Your task to perform on an android device: check data usage Image 0: 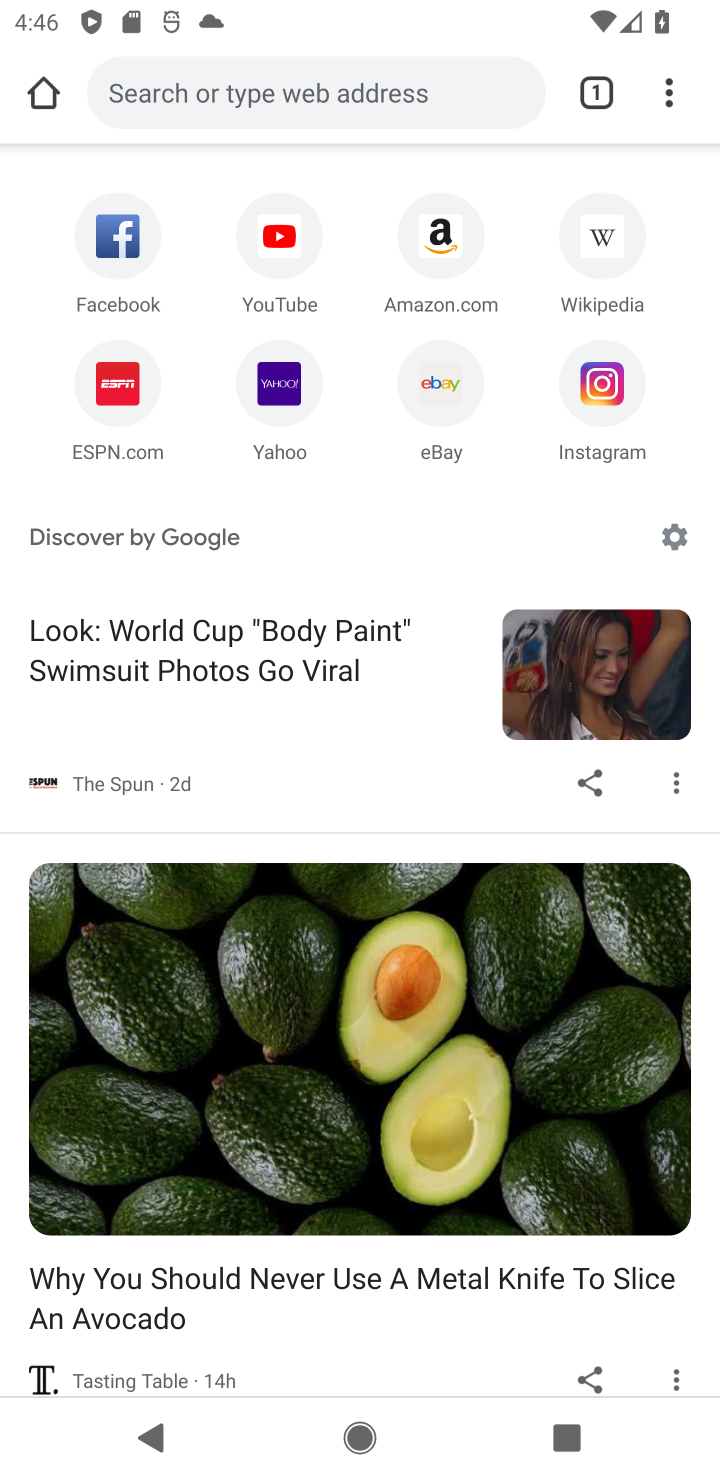
Step 0: press back button
Your task to perform on an android device: check data usage Image 1: 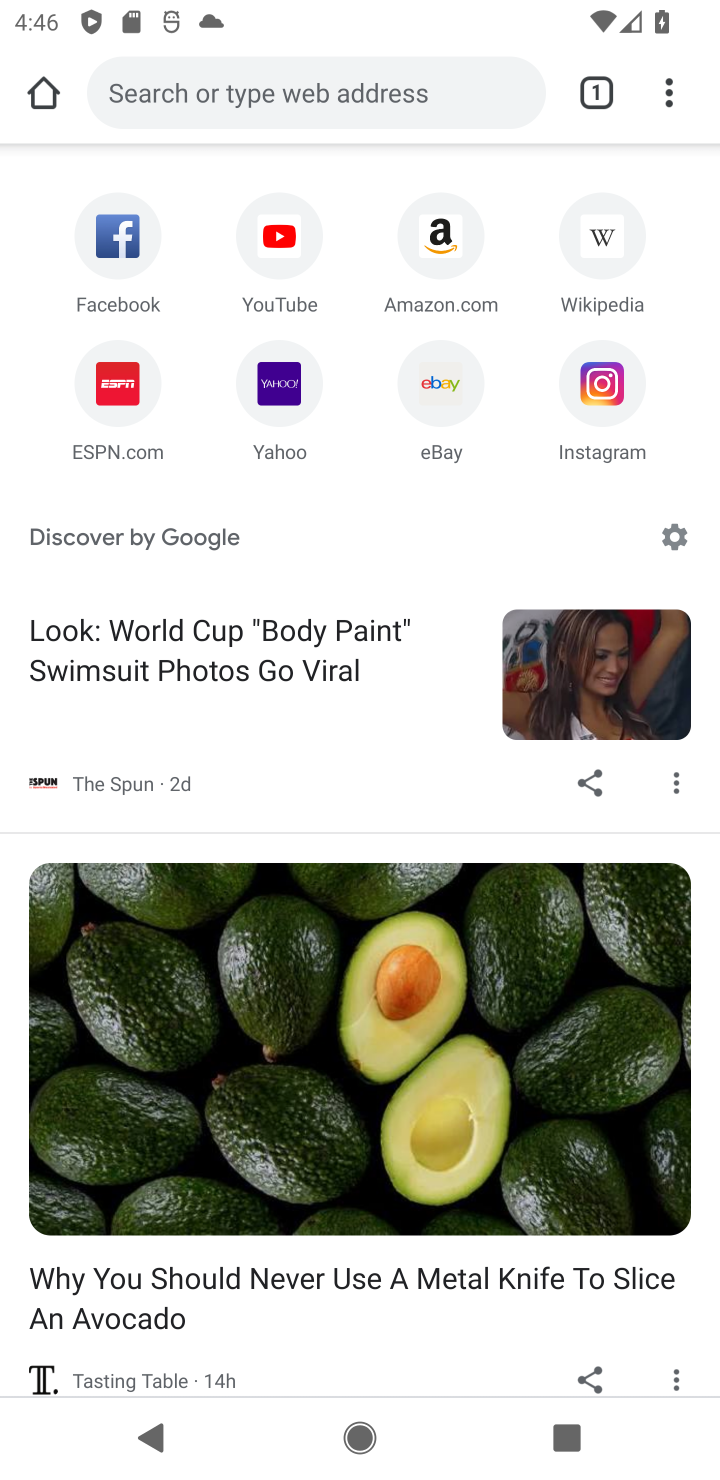
Step 1: press back button
Your task to perform on an android device: check data usage Image 2: 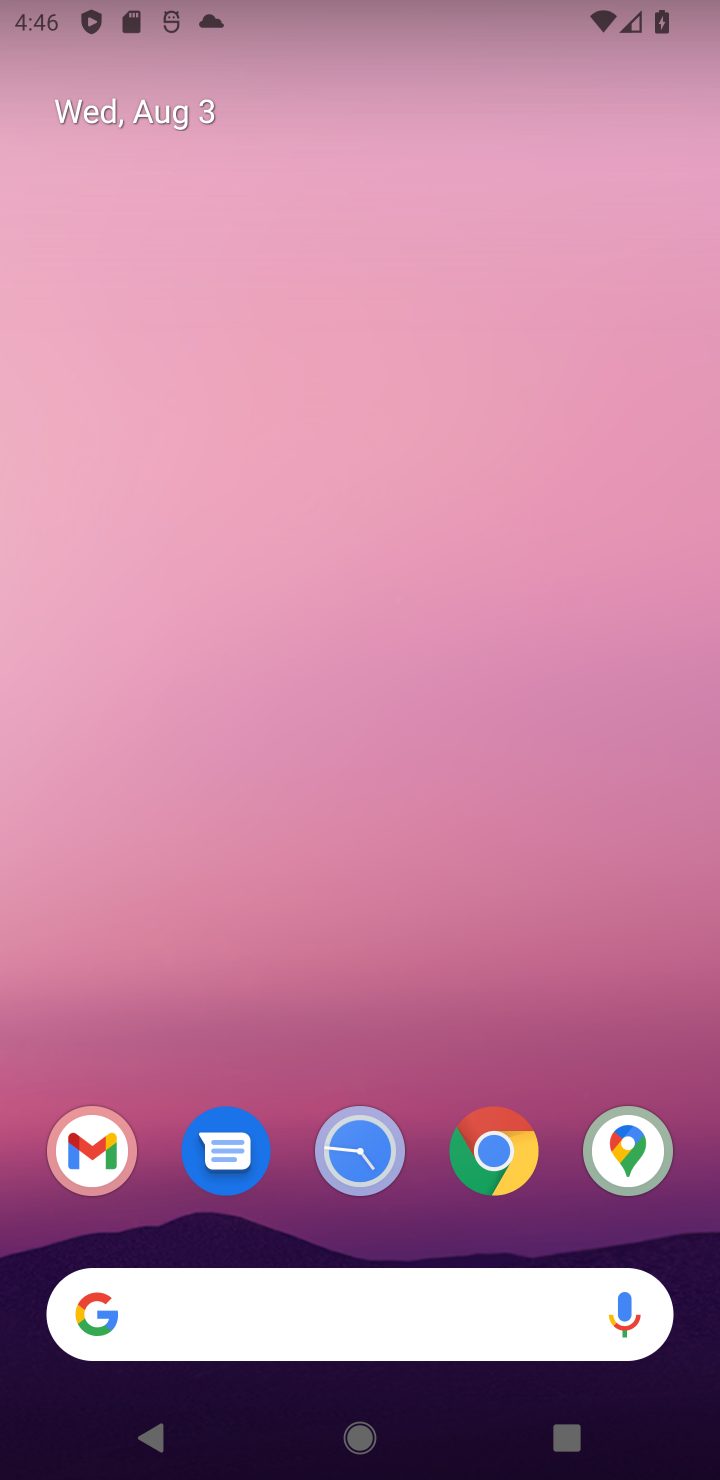
Step 2: press back button
Your task to perform on an android device: check data usage Image 3: 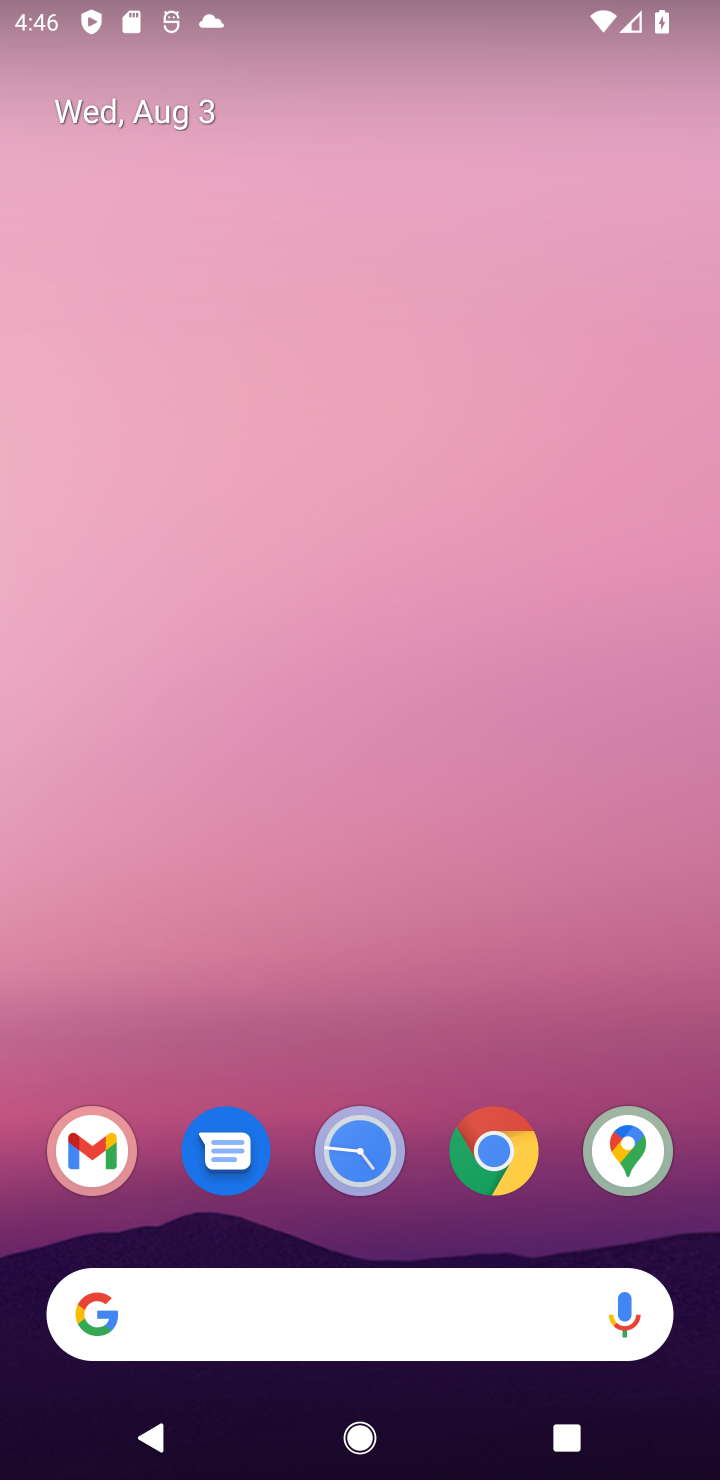
Step 3: drag from (352, 1402) to (209, 478)
Your task to perform on an android device: check data usage Image 4: 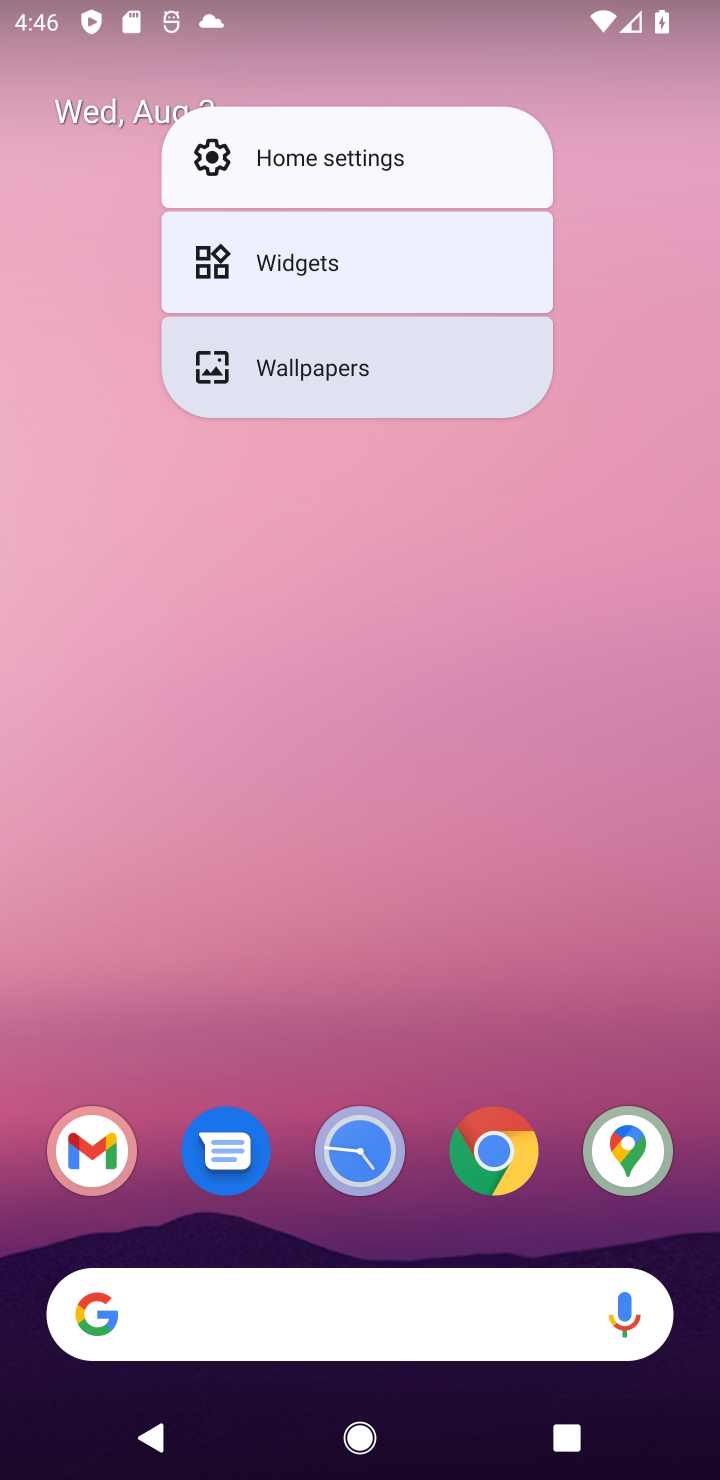
Step 4: drag from (289, 1355) to (220, 307)
Your task to perform on an android device: check data usage Image 5: 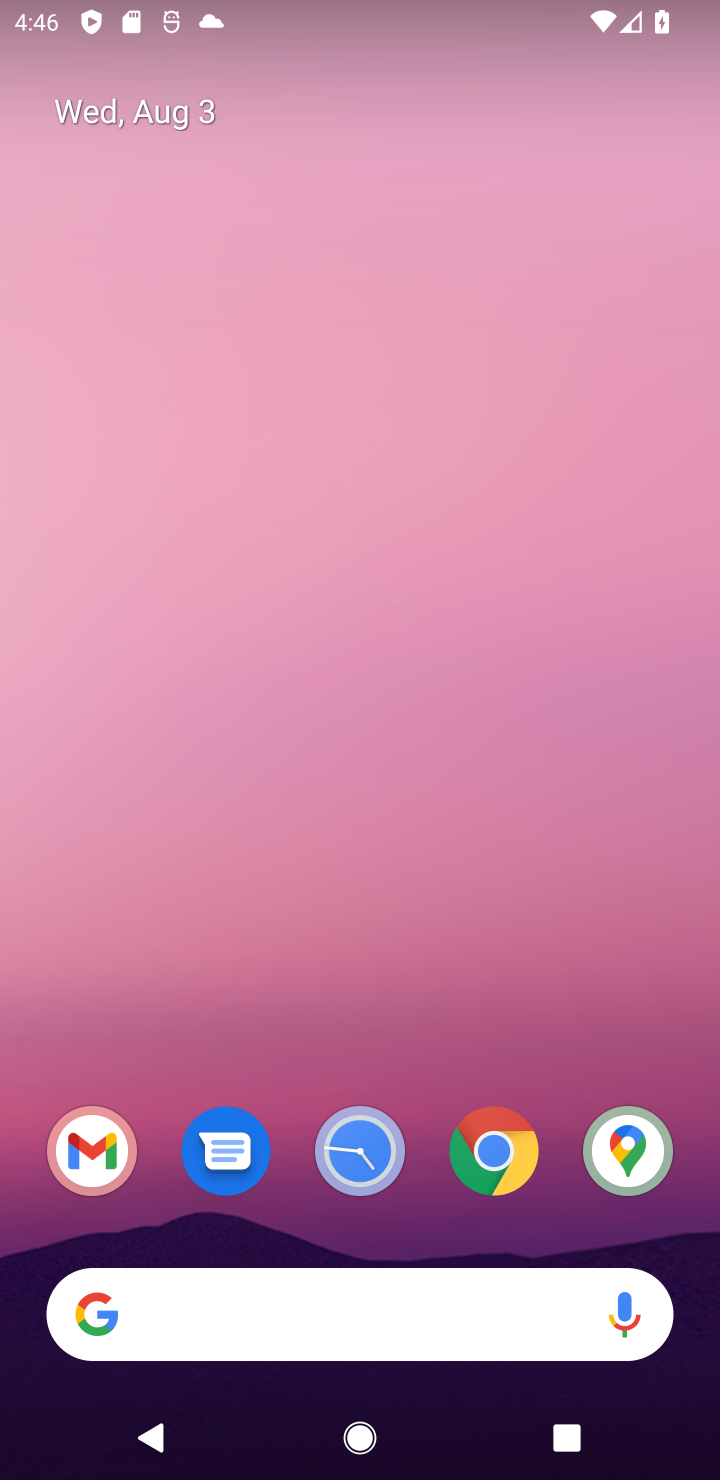
Step 5: drag from (390, 1276) to (287, 109)
Your task to perform on an android device: check data usage Image 6: 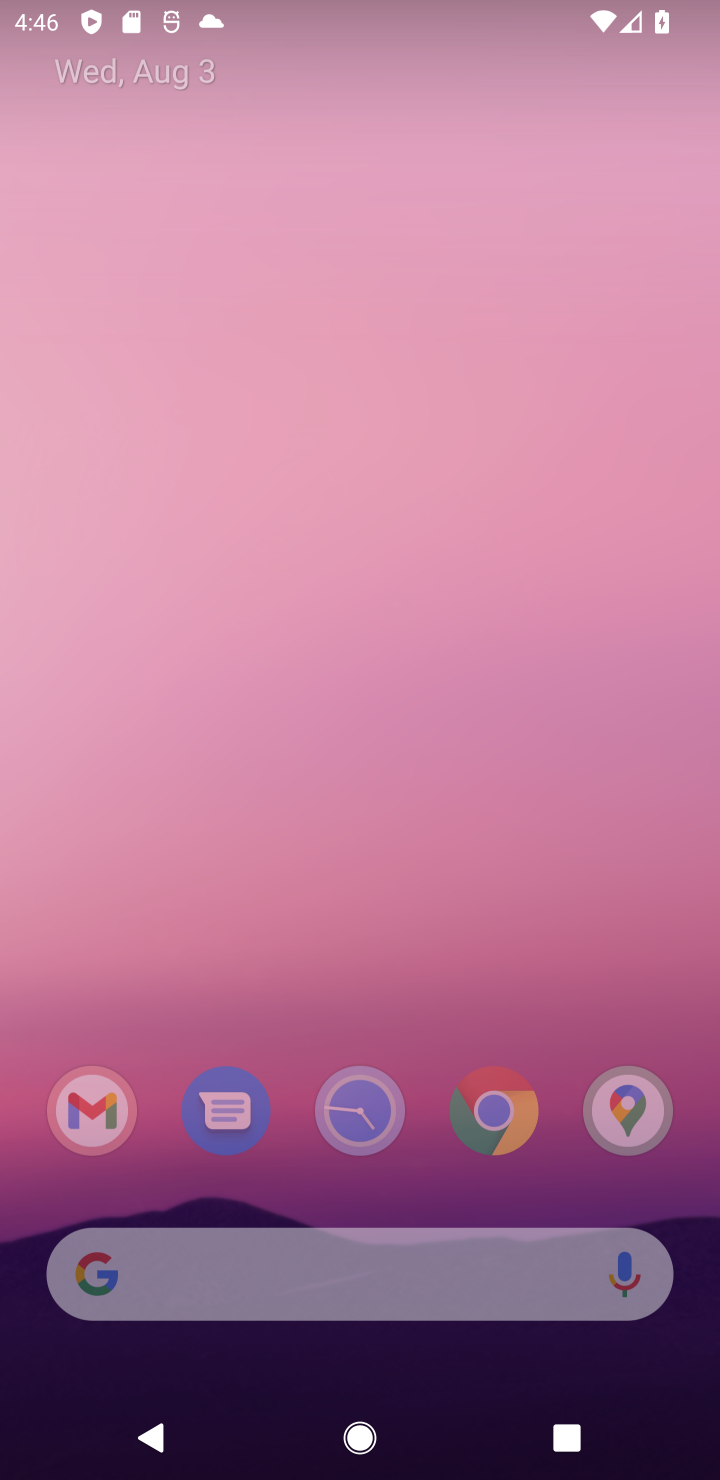
Step 6: drag from (373, 401) to (360, 256)
Your task to perform on an android device: check data usage Image 7: 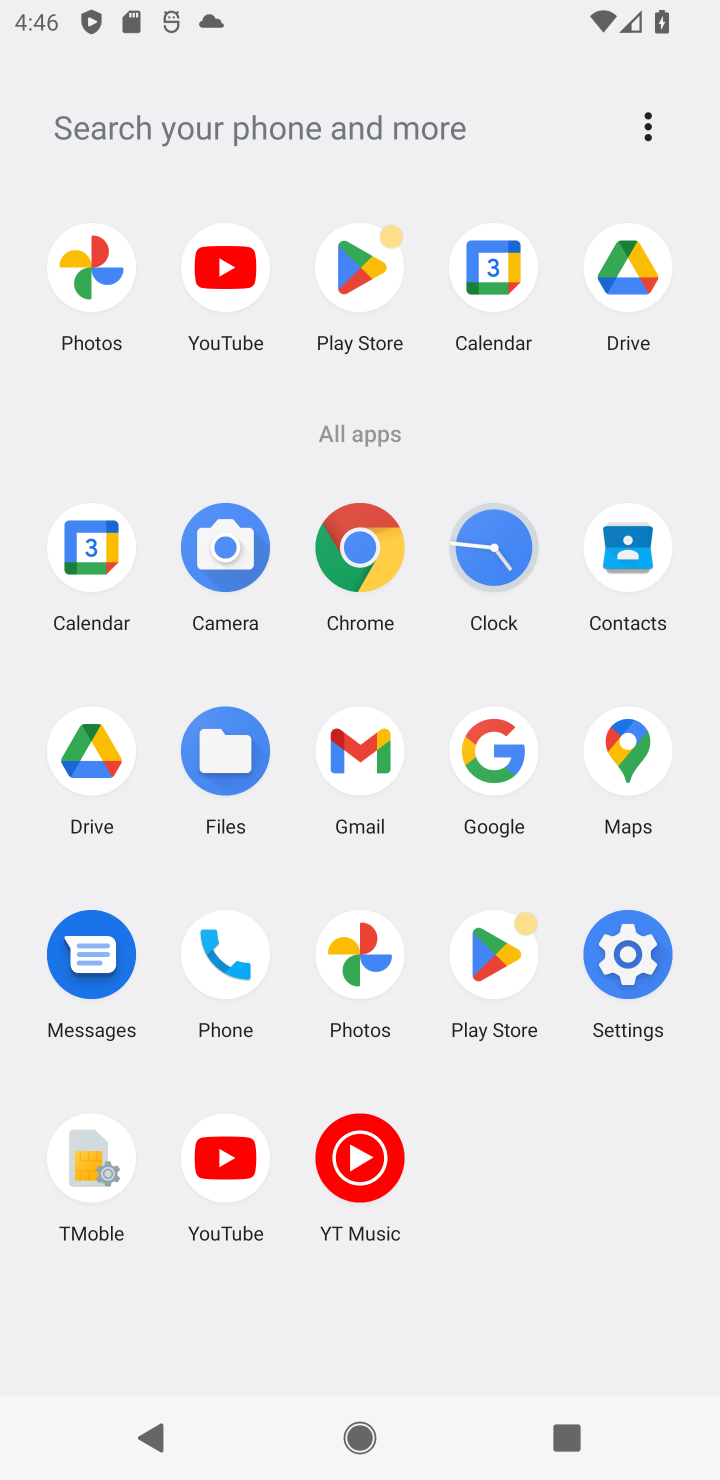
Step 7: click (376, 563)
Your task to perform on an android device: check data usage Image 8: 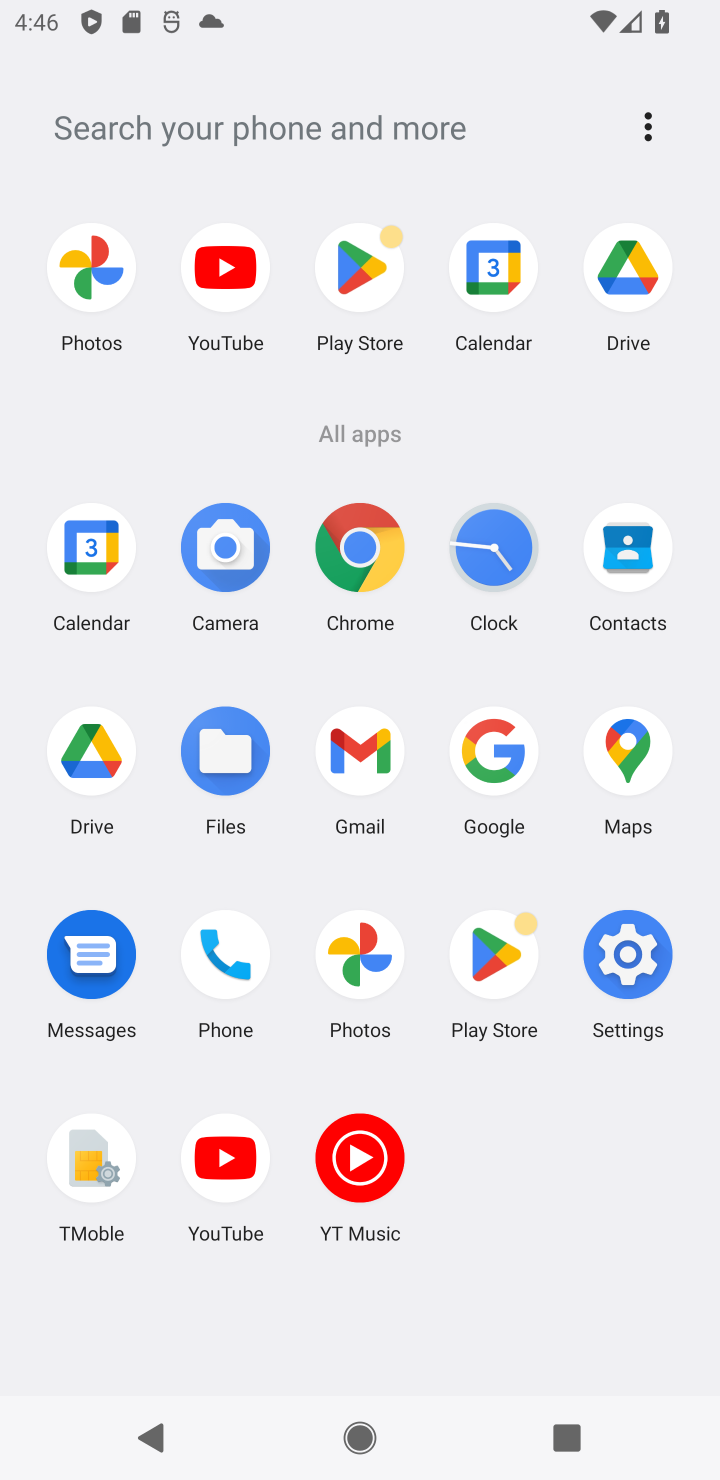
Step 8: click (376, 563)
Your task to perform on an android device: check data usage Image 9: 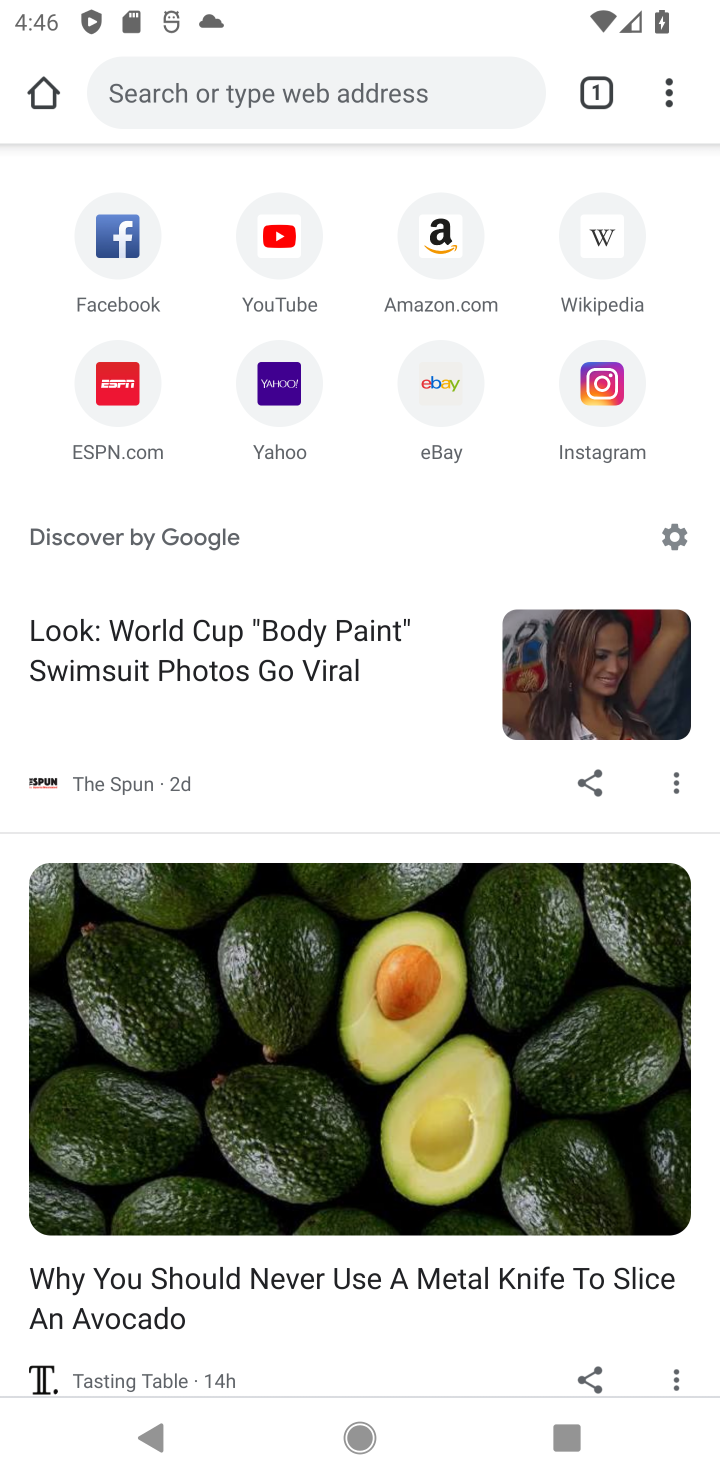
Step 9: press back button
Your task to perform on an android device: check data usage Image 10: 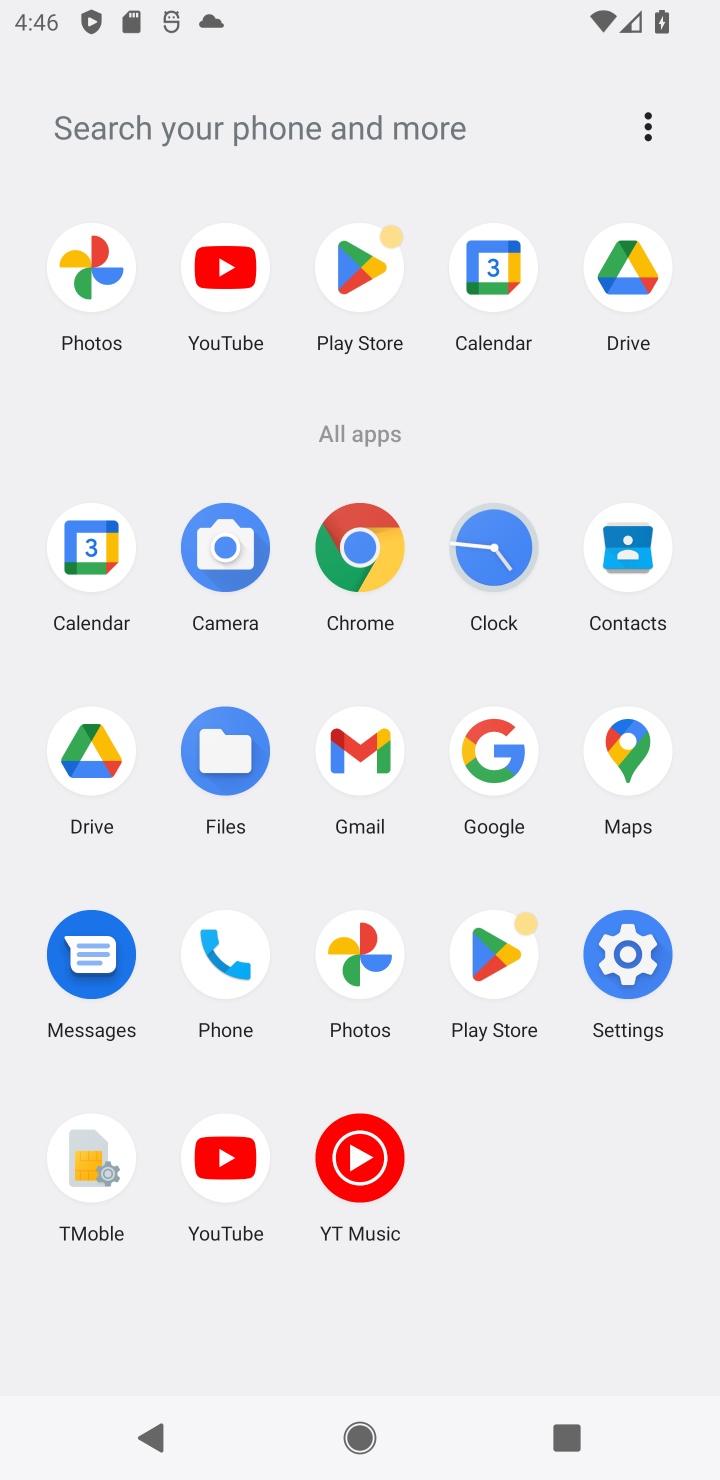
Step 10: click (634, 957)
Your task to perform on an android device: check data usage Image 11: 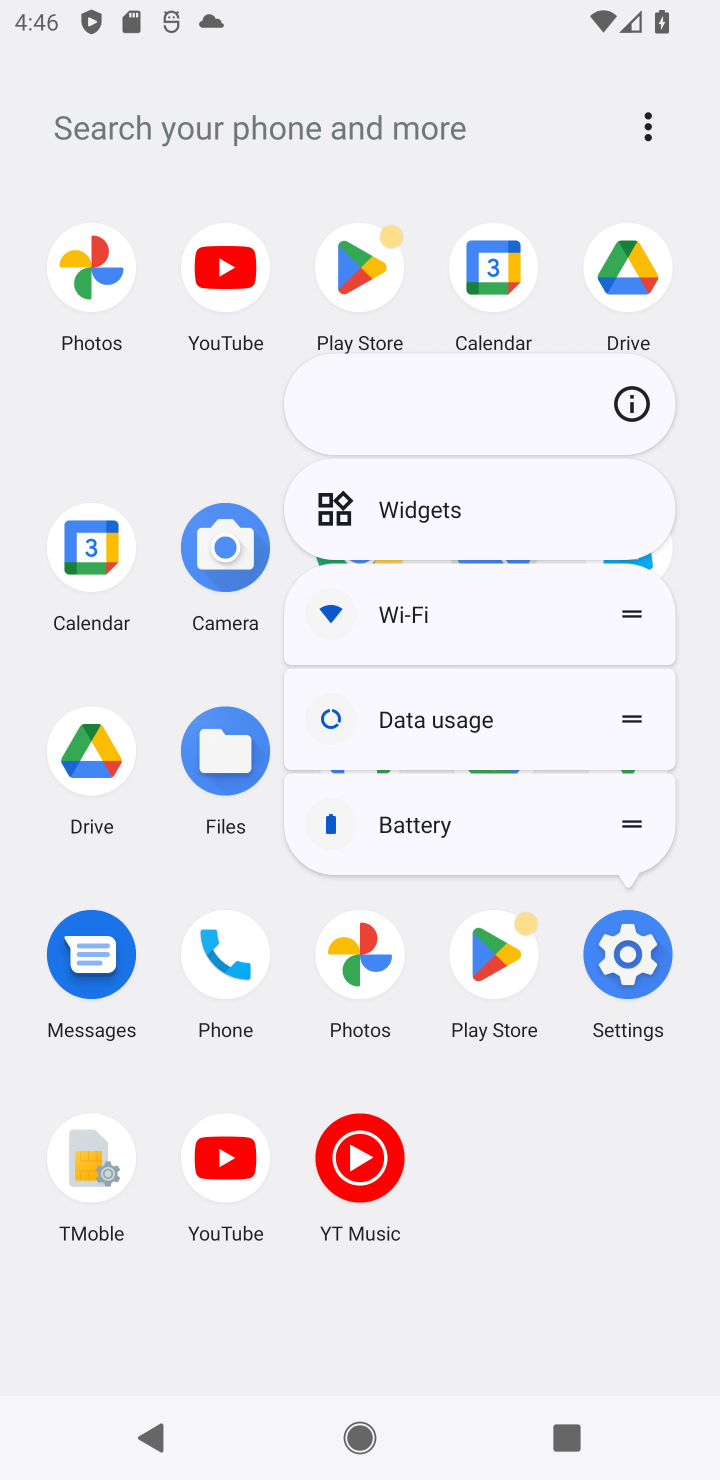
Step 11: click (632, 929)
Your task to perform on an android device: check data usage Image 12: 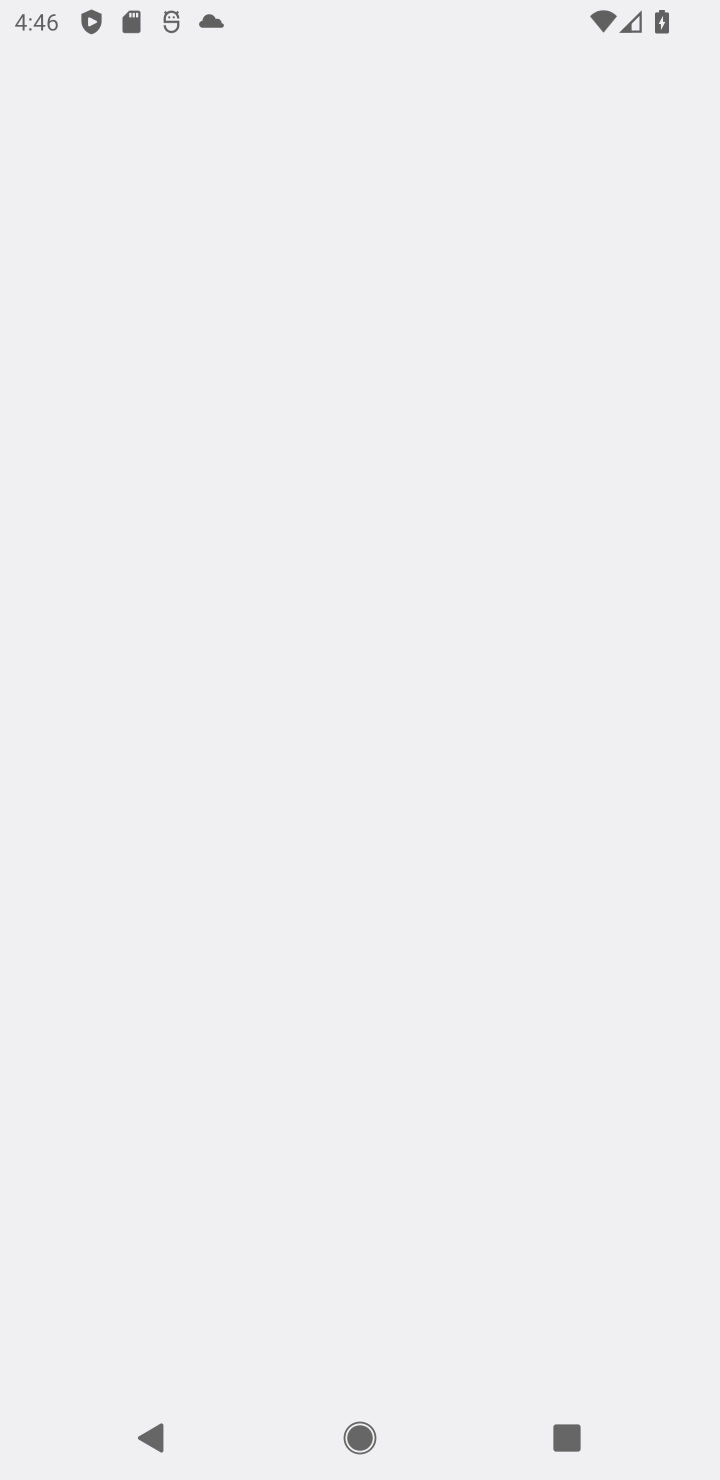
Step 12: click (633, 947)
Your task to perform on an android device: check data usage Image 13: 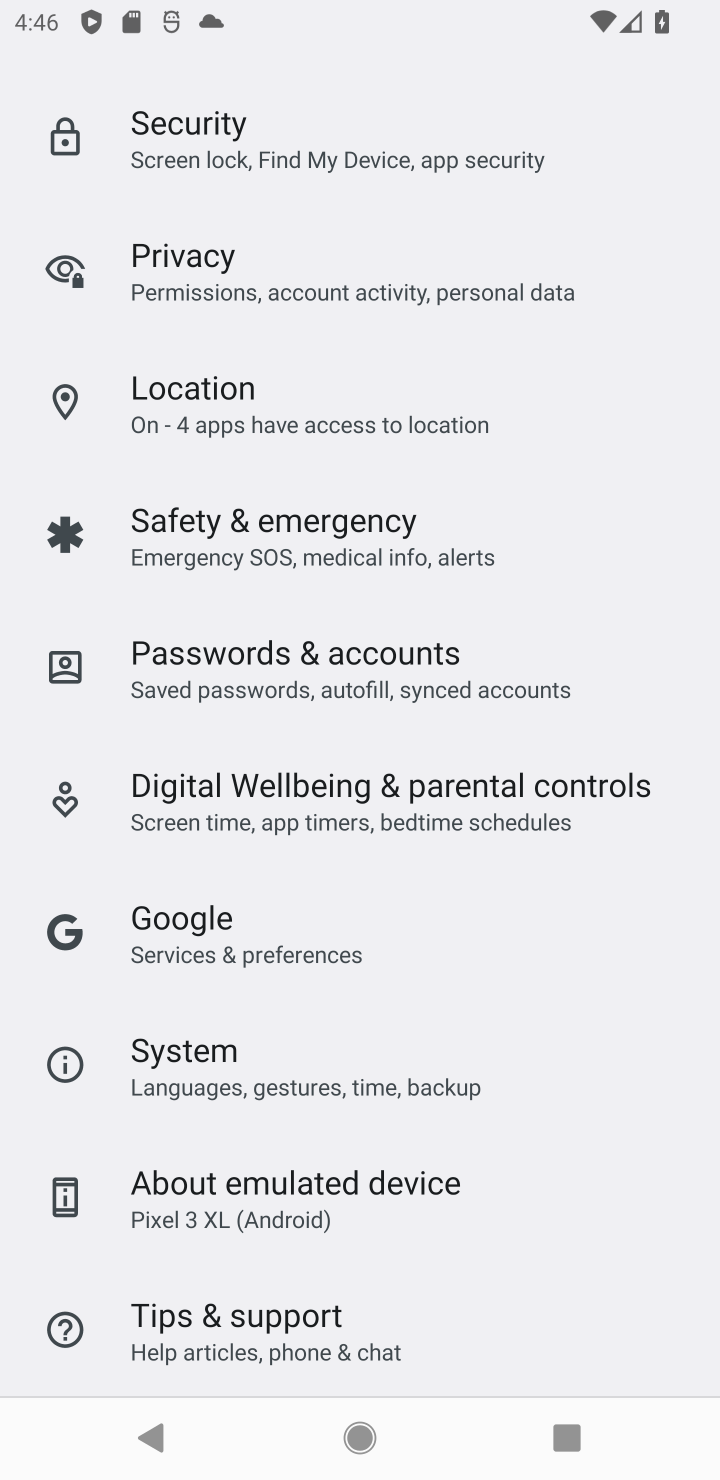
Step 13: drag from (230, 227) to (331, 1044)
Your task to perform on an android device: check data usage Image 14: 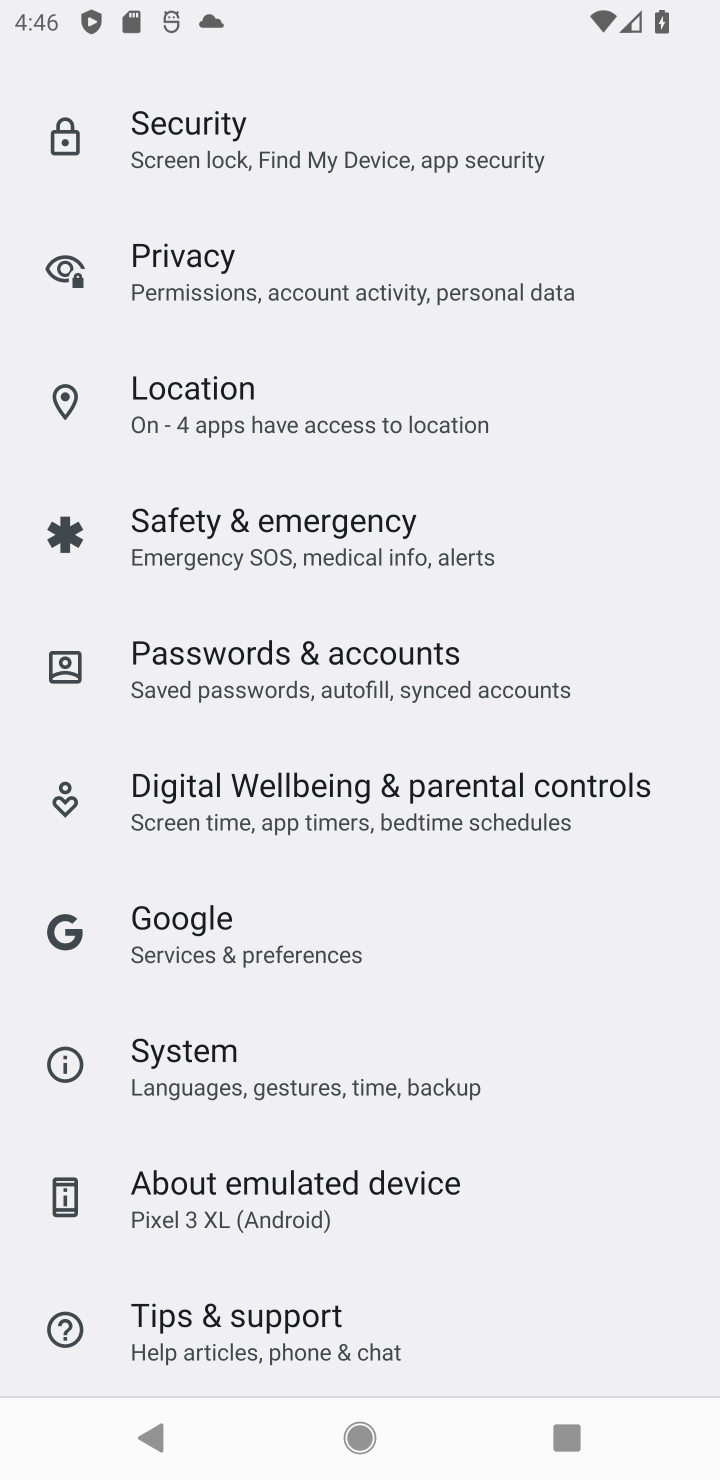
Step 14: drag from (134, 309) to (255, 1005)
Your task to perform on an android device: check data usage Image 15: 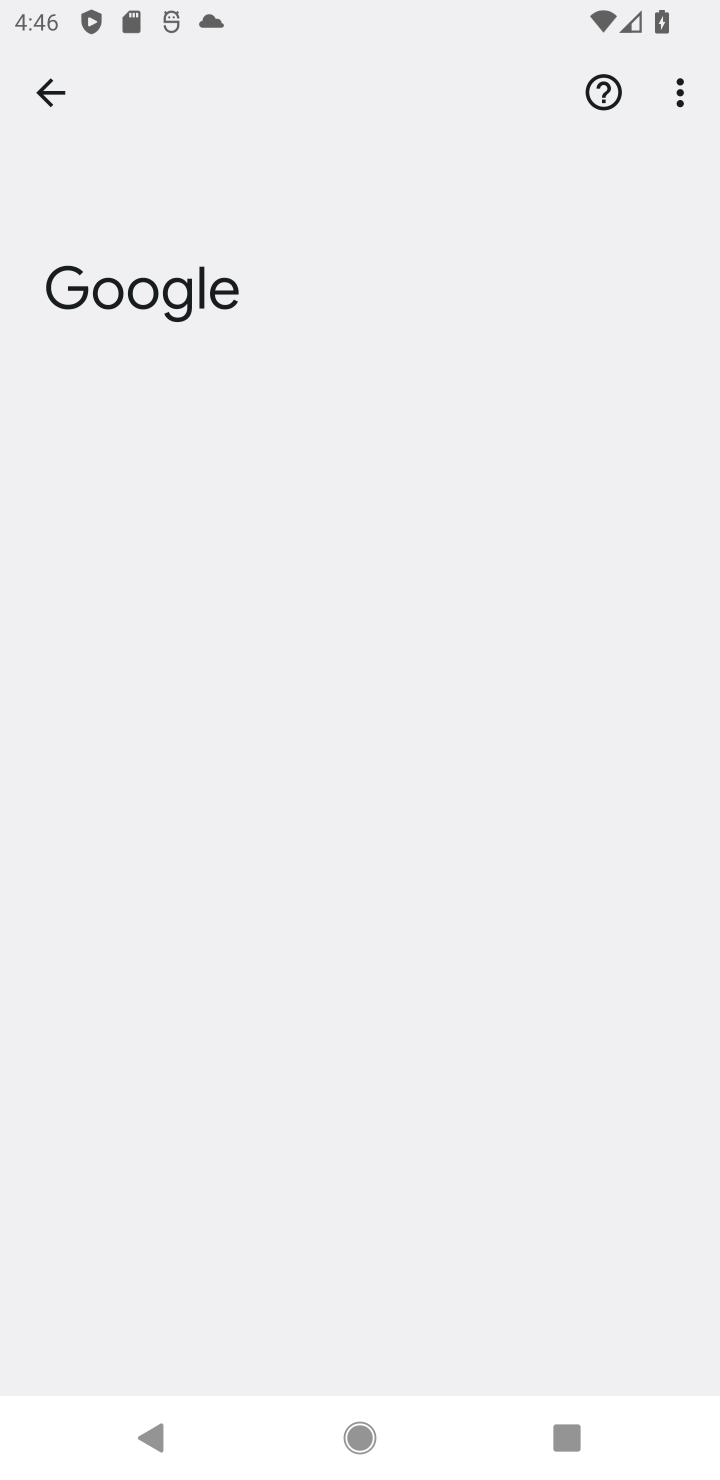
Step 15: drag from (135, 551) to (141, 1160)
Your task to perform on an android device: check data usage Image 16: 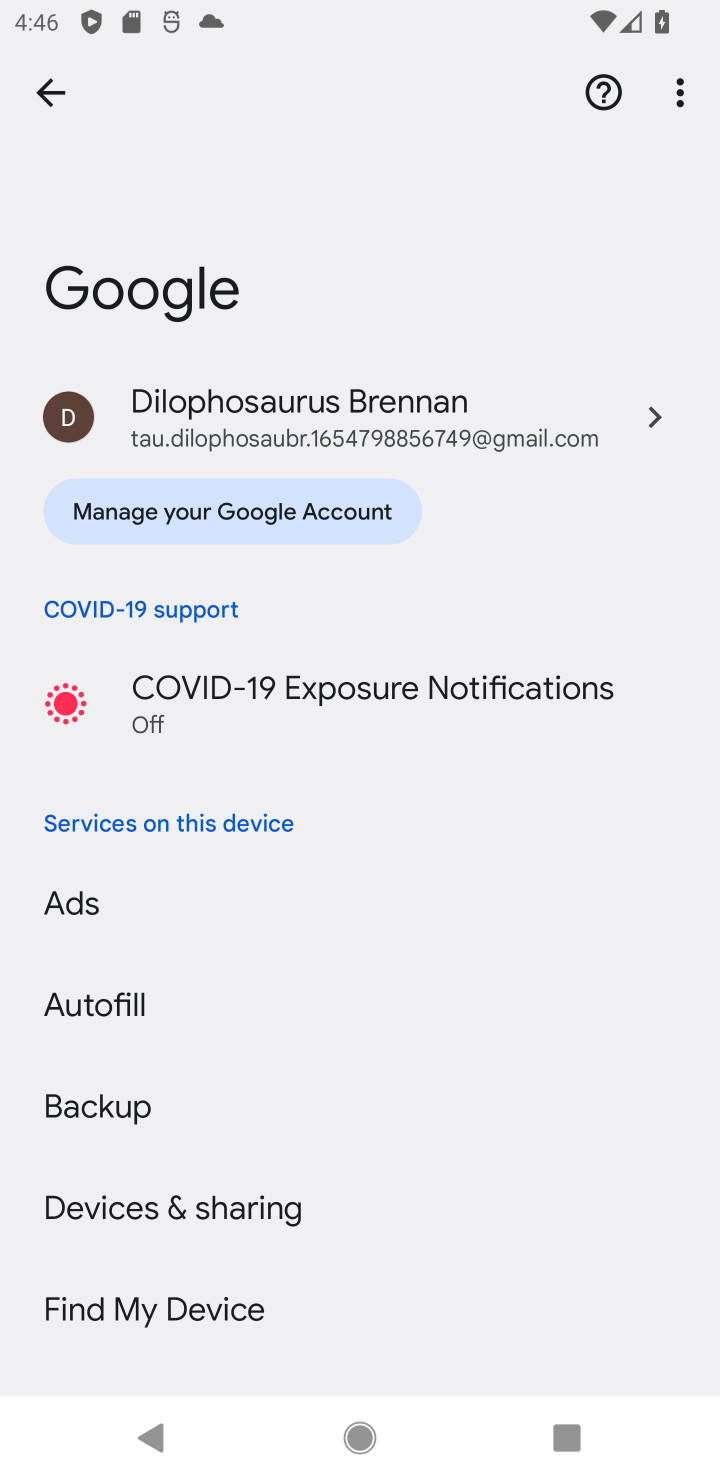
Step 16: click (61, 97)
Your task to perform on an android device: check data usage Image 17: 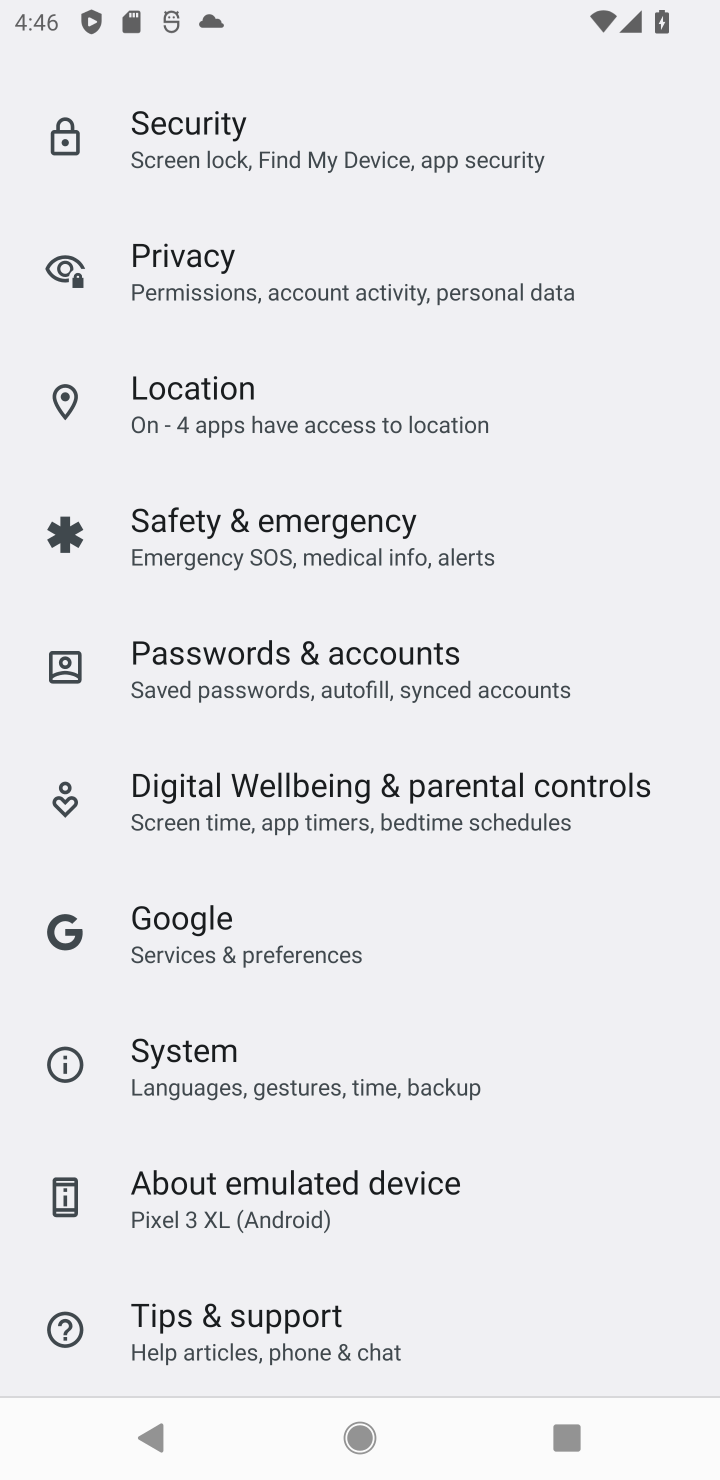
Step 17: drag from (338, 146) to (241, 1213)
Your task to perform on an android device: check data usage Image 18: 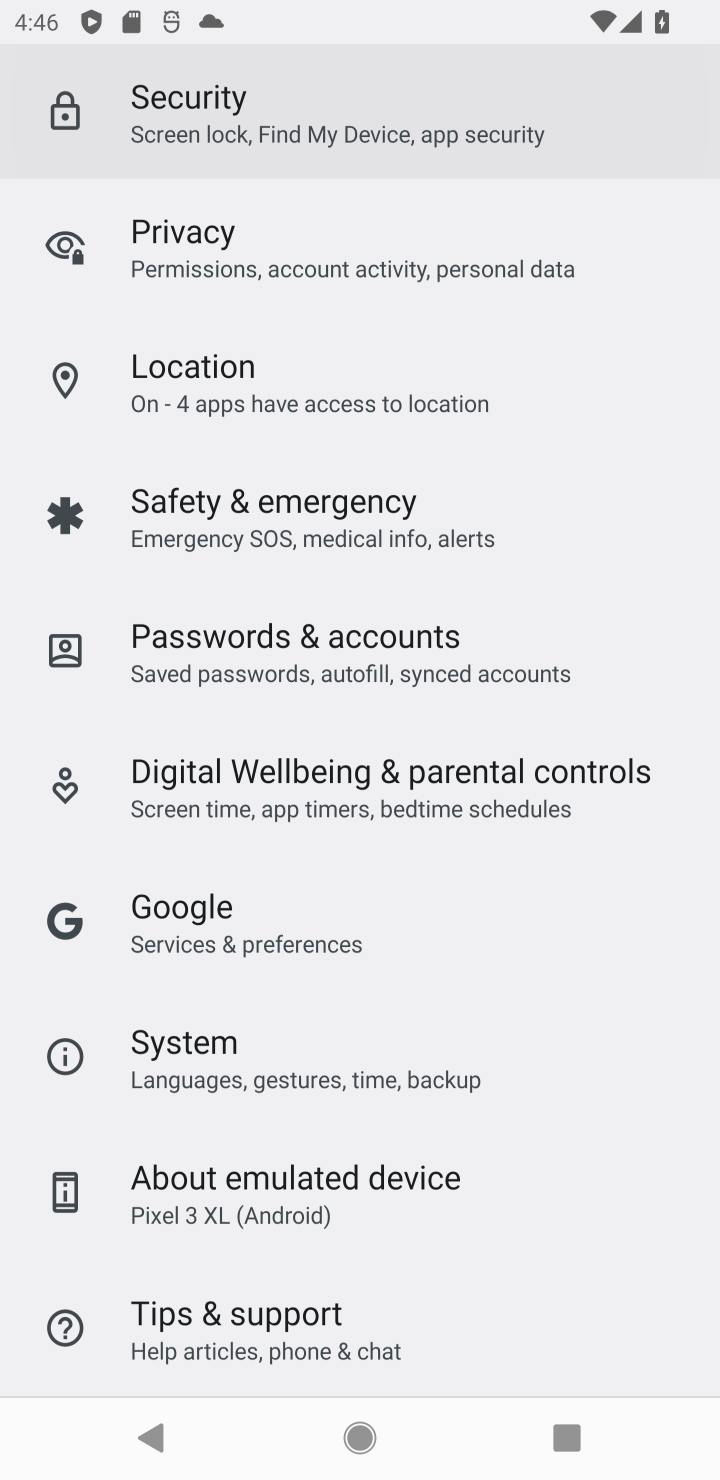
Step 18: drag from (263, 672) to (327, 1183)
Your task to perform on an android device: check data usage Image 19: 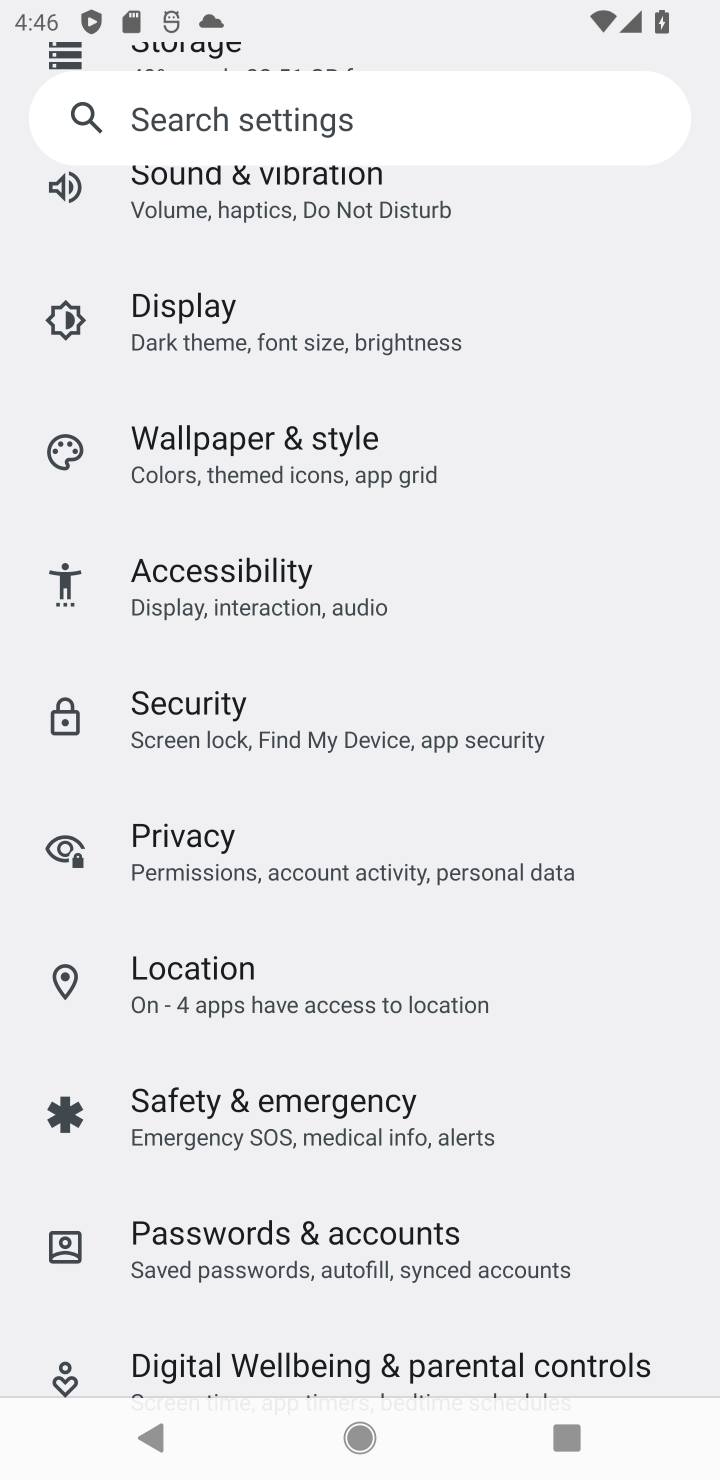
Step 19: drag from (239, 244) to (396, 1104)
Your task to perform on an android device: check data usage Image 20: 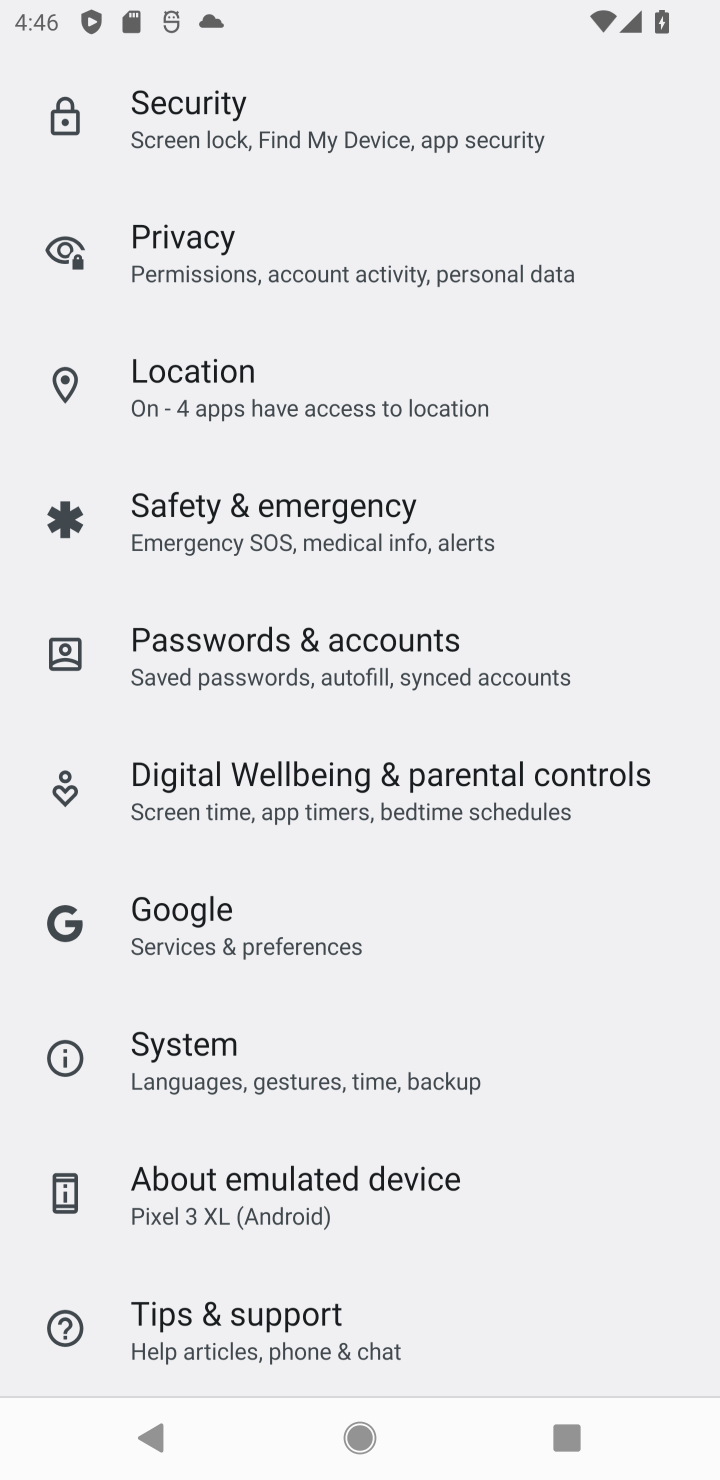
Step 20: drag from (207, 474) to (186, 1356)
Your task to perform on an android device: check data usage Image 21: 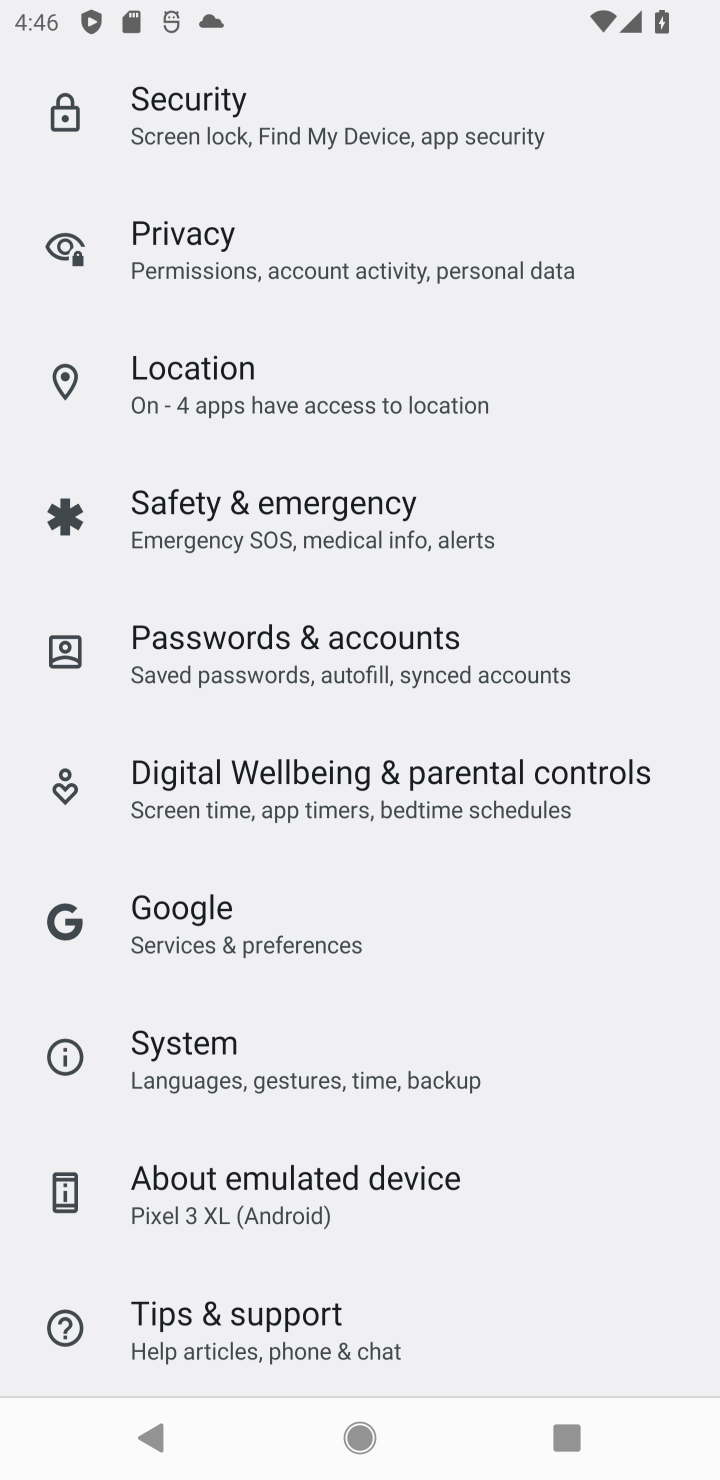
Step 21: drag from (132, 485) to (285, 1002)
Your task to perform on an android device: check data usage Image 22: 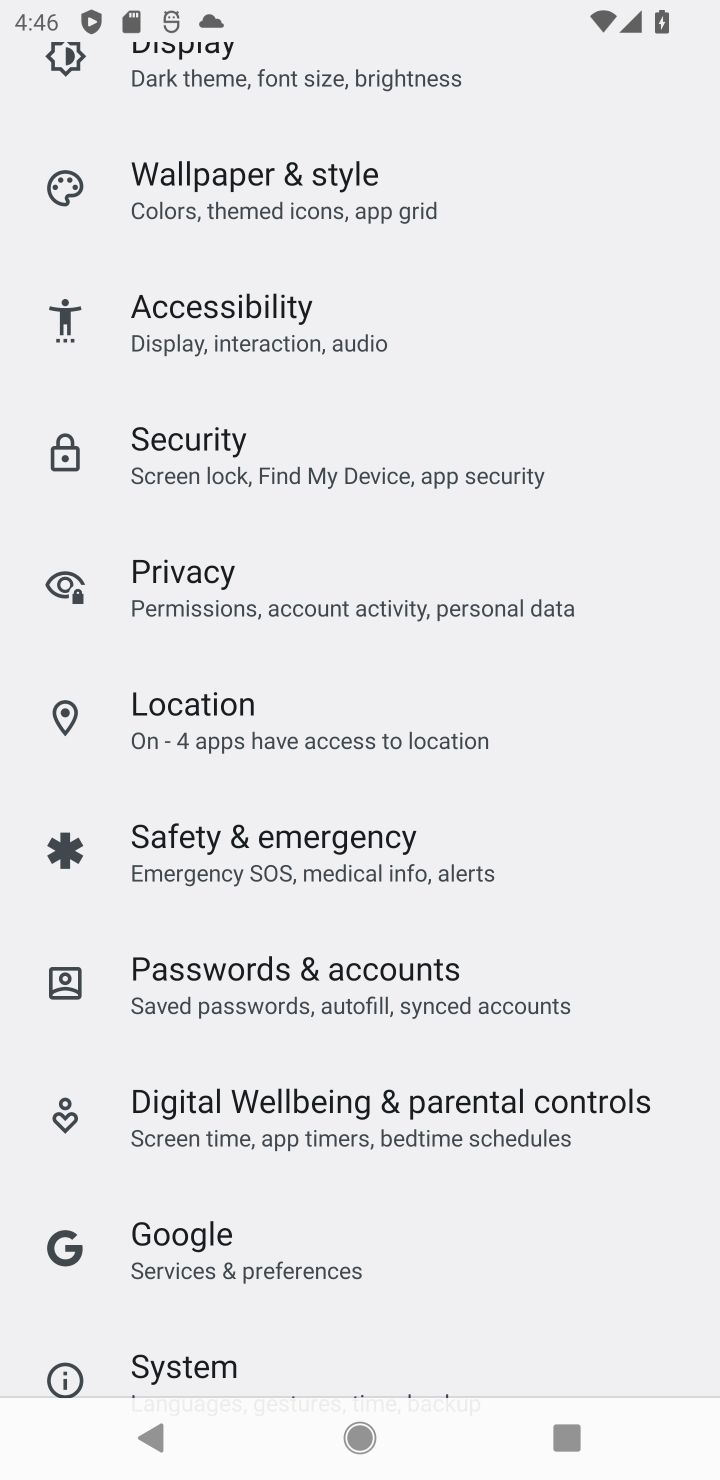
Step 22: drag from (310, 548) to (406, 1318)
Your task to perform on an android device: check data usage Image 23: 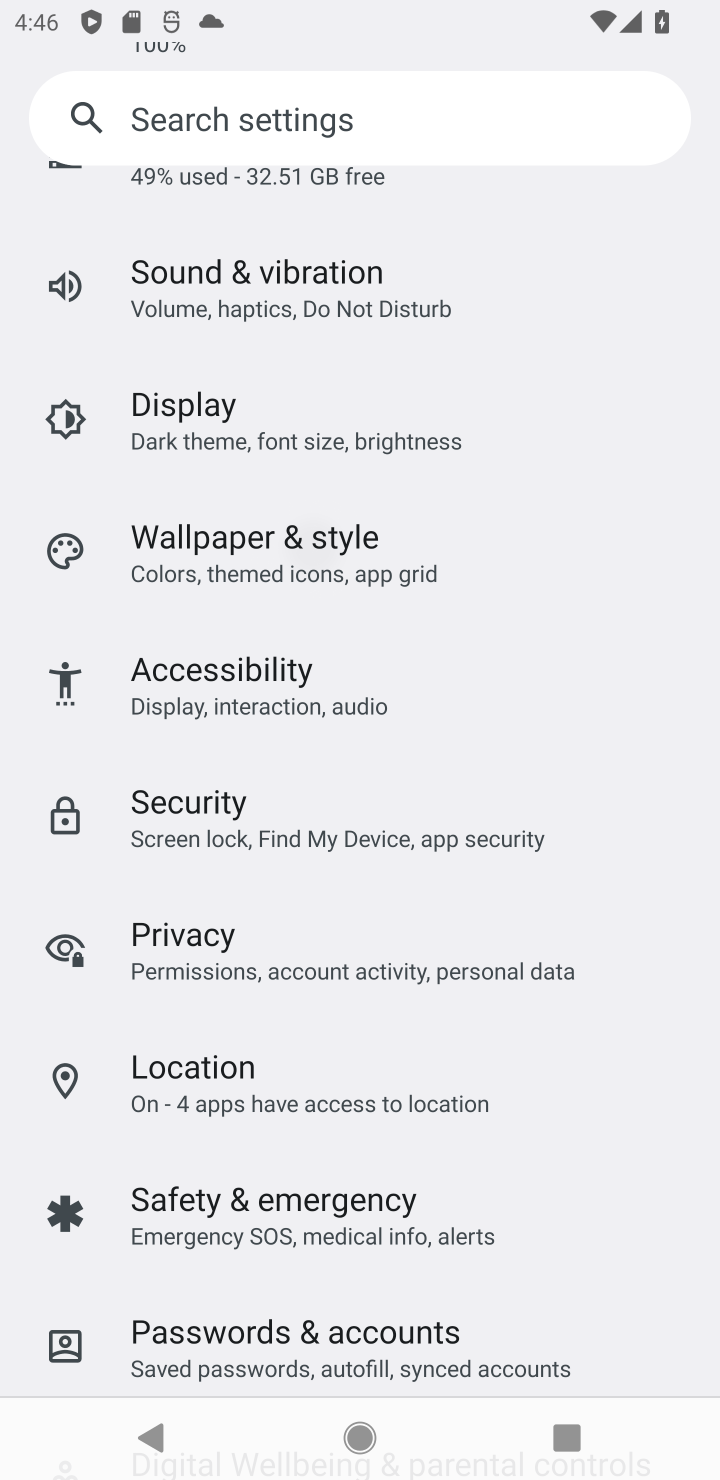
Step 23: drag from (270, 634) to (420, 1253)
Your task to perform on an android device: check data usage Image 24: 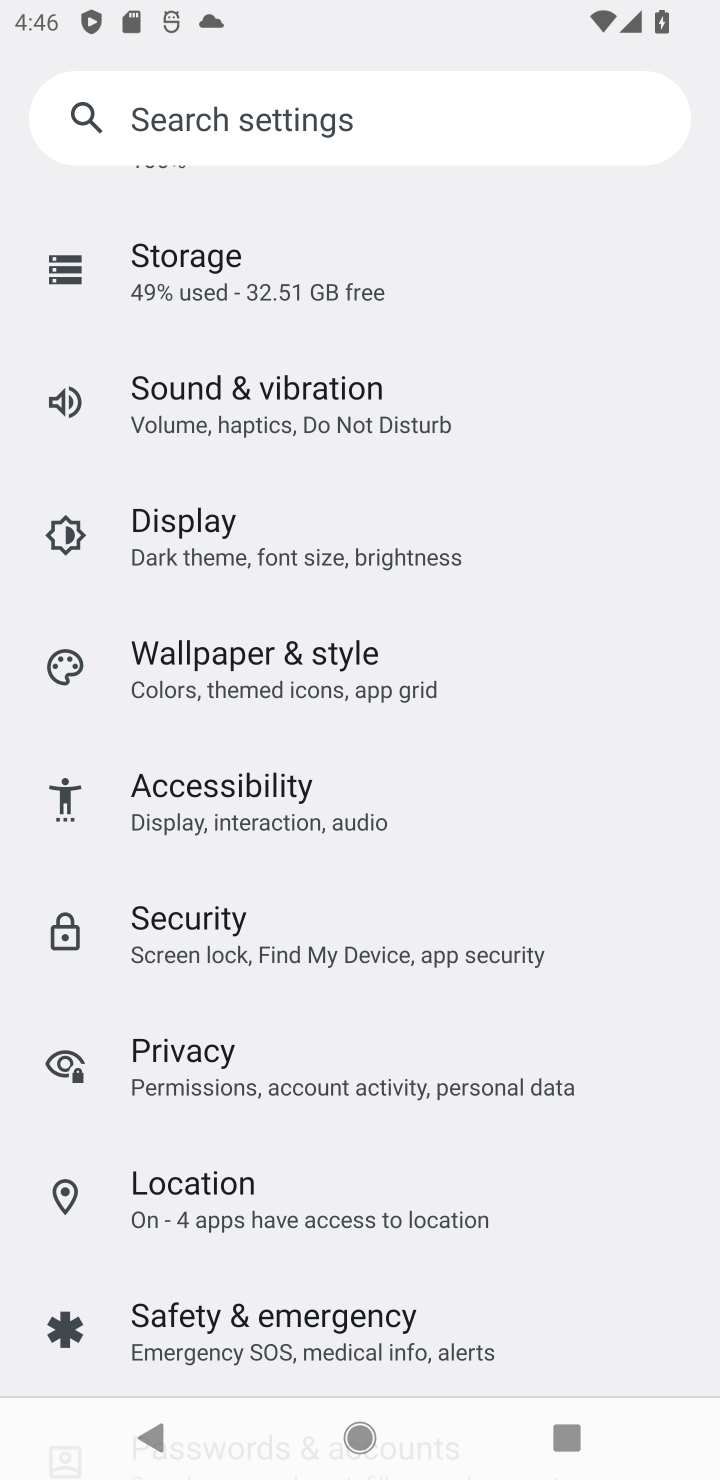
Step 24: drag from (248, 440) to (283, 1100)
Your task to perform on an android device: check data usage Image 25: 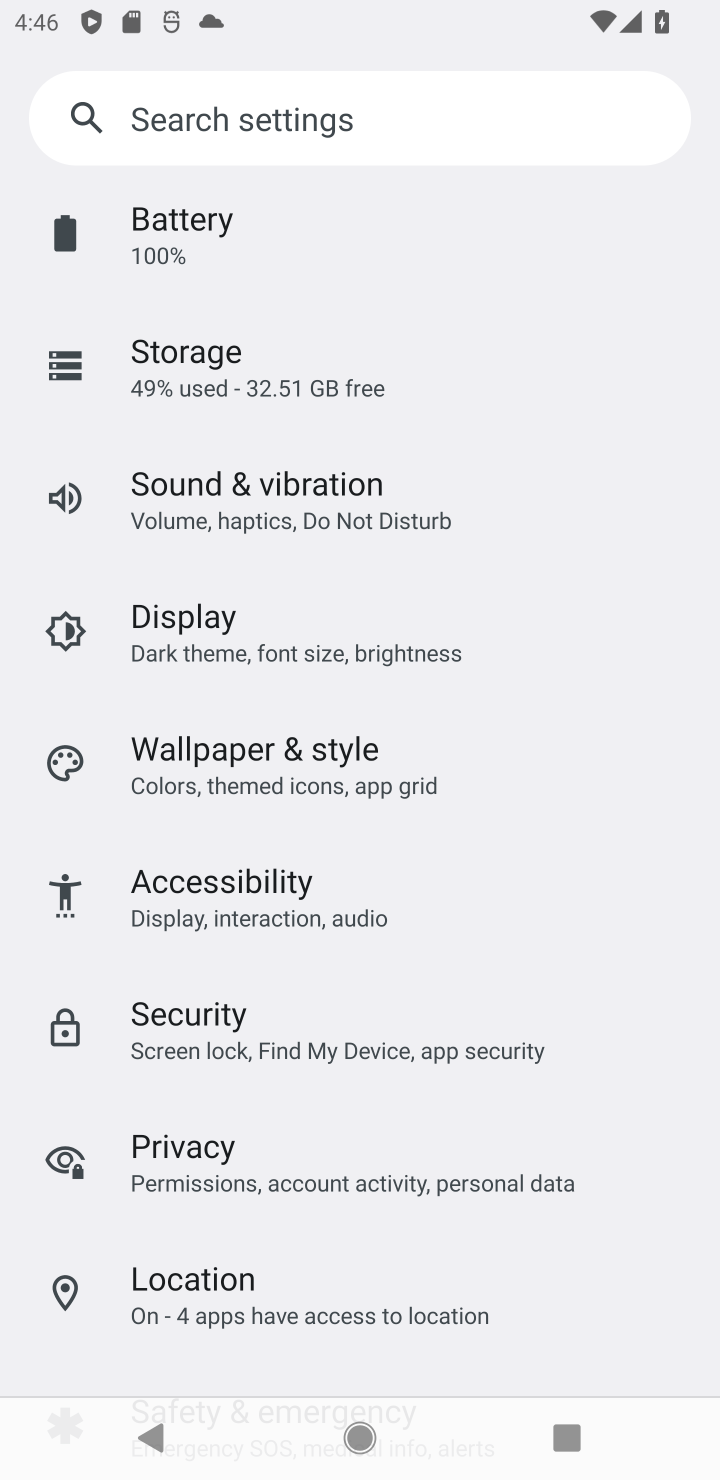
Step 25: drag from (267, 457) to (266, 1103)
Your task to perform on an android device: check data usage Image 26: 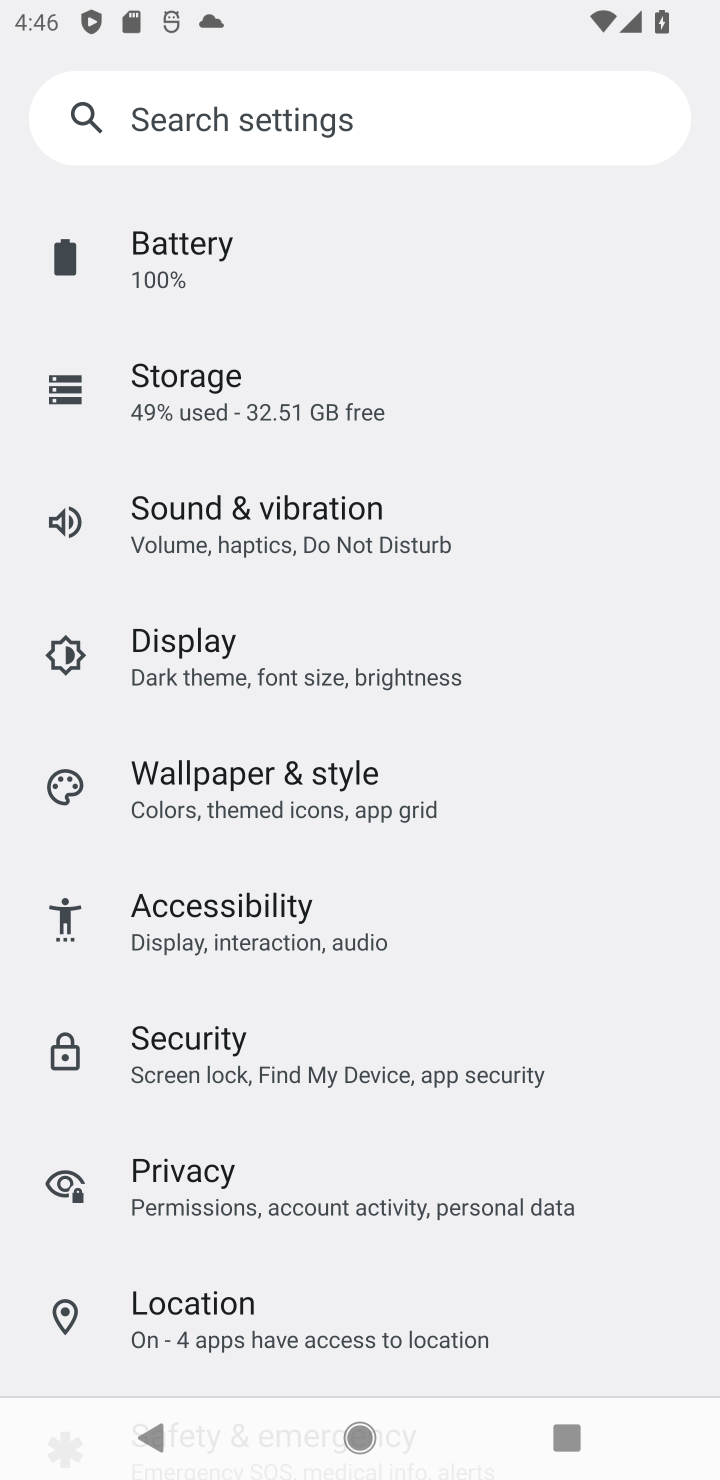
Step 26: drag from (140, 452) to (211, 1323)
Your task to perform on an android device: check data usage Image 27: 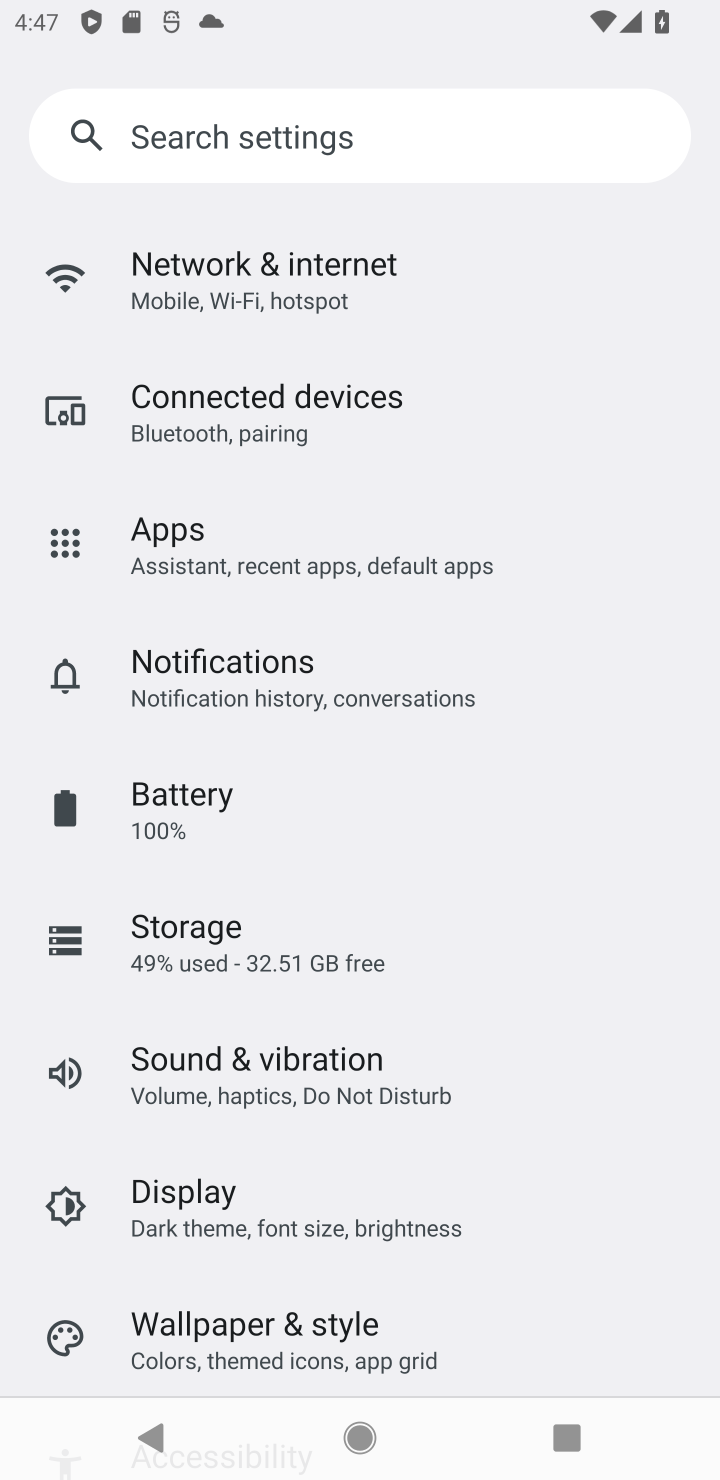
Step 27: drag from (122, 409) to (196, 1018)
Your task to perform on an android device: check data usage Image 28: 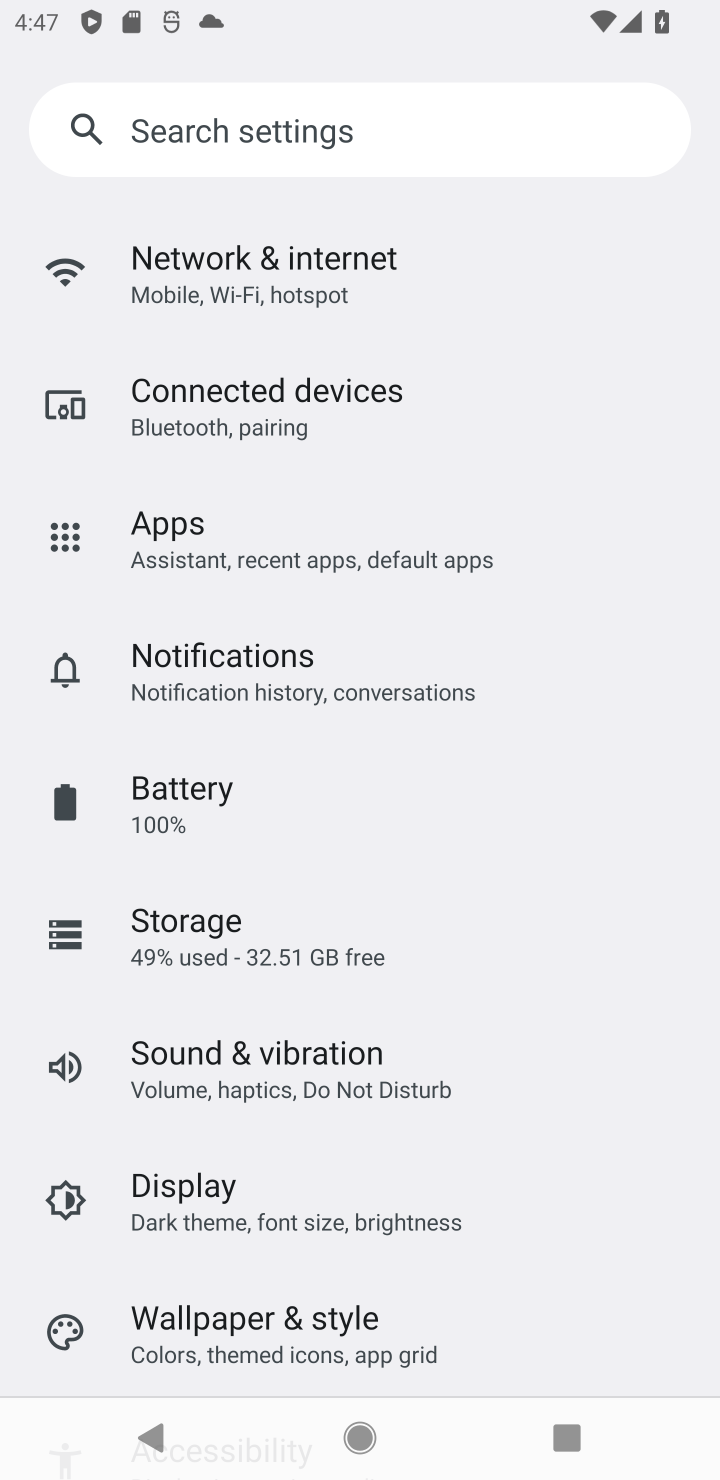
Step 28: drag from (104, 587) to (170, 1324)
Your task to perform on an android device: check data usage Image 29: 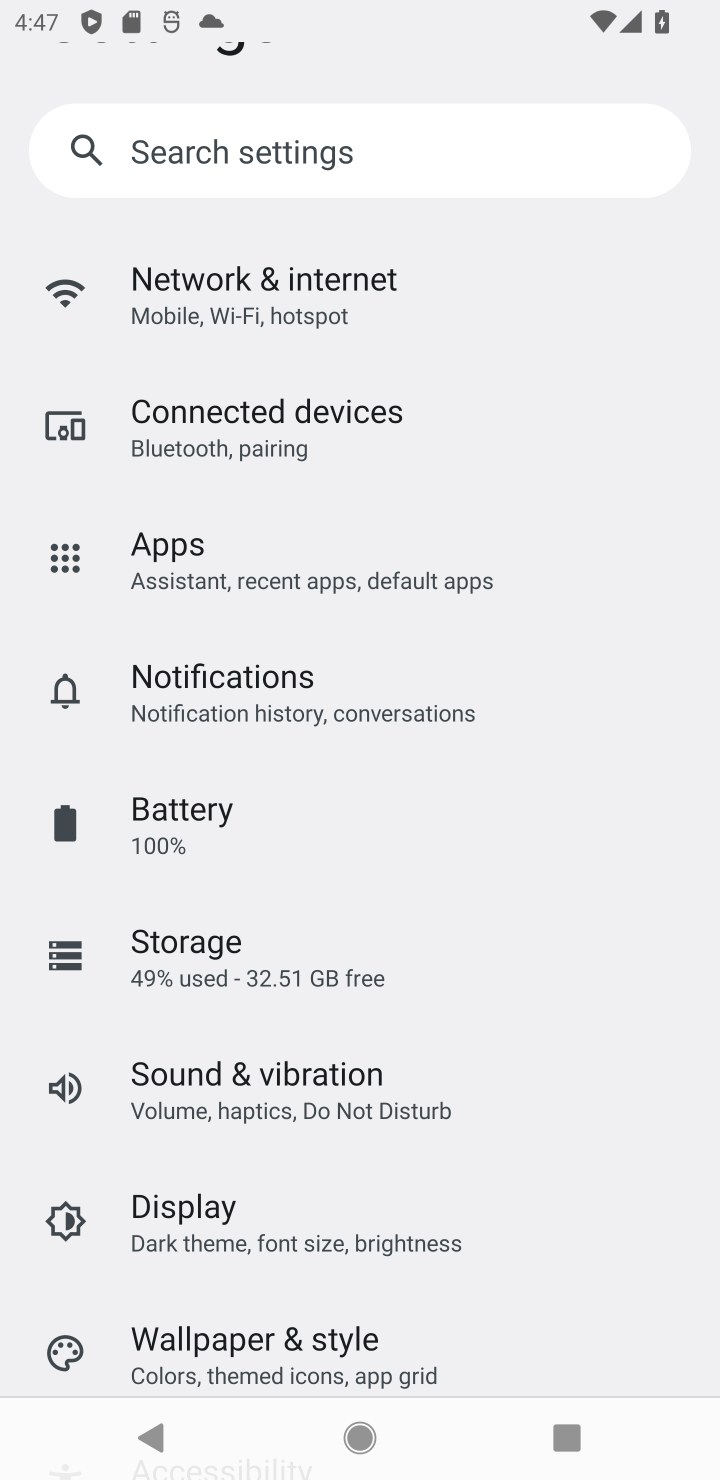
Step 29: click (241, 288)
Your task to perform on an android device: check data usage Image 30: 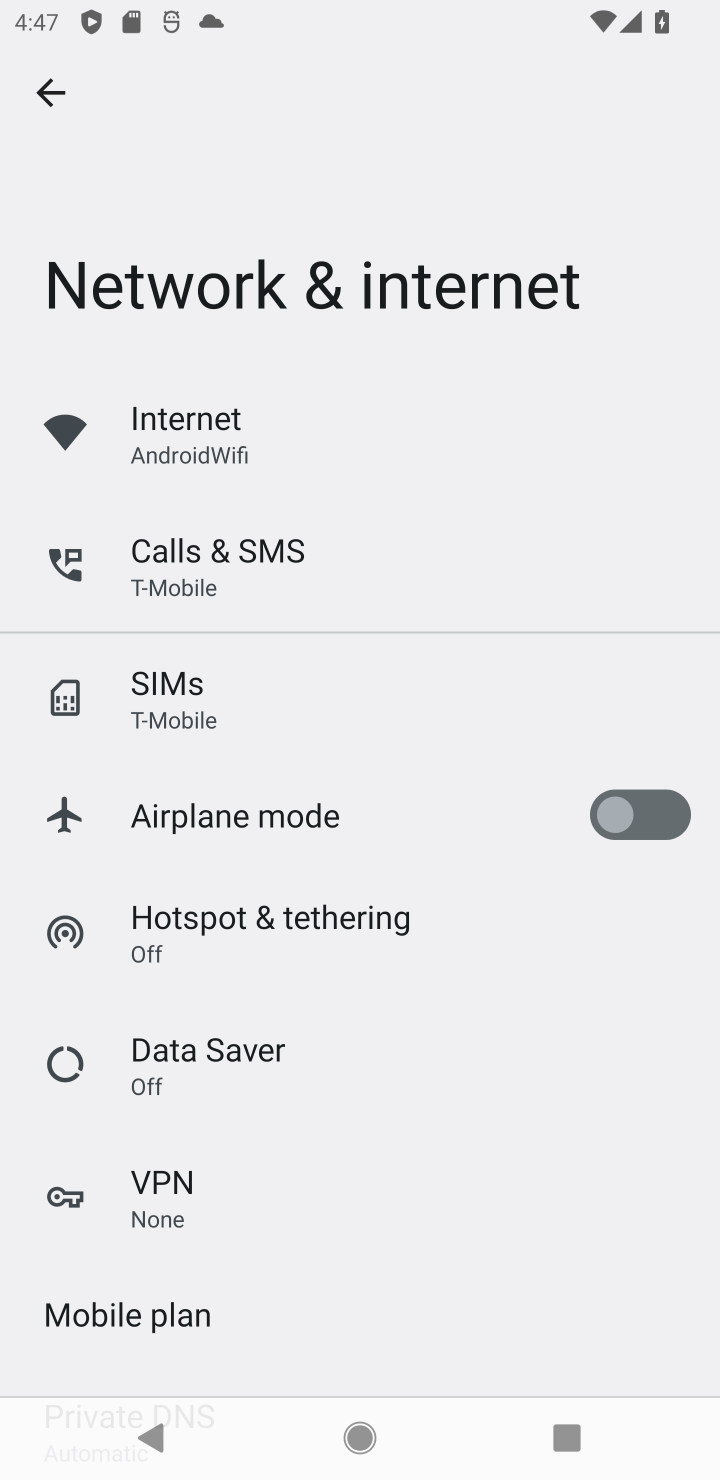
Step 30: task complete